Your task to perform on an android device: turn off airplane mode Image 0: 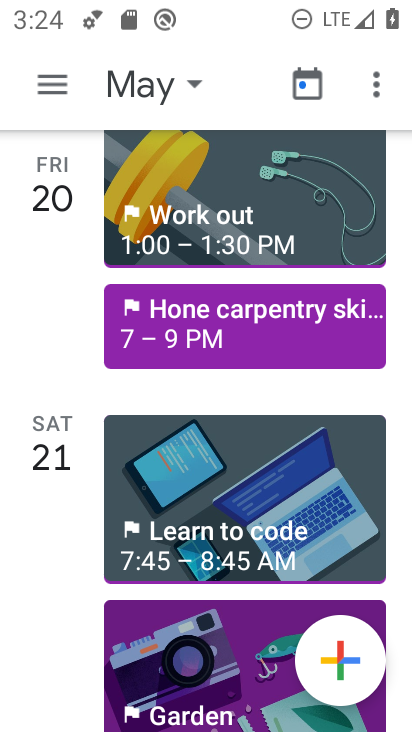
Step 0: press home button
Your task to perform on an android device: turn off airplane mode Image 1: 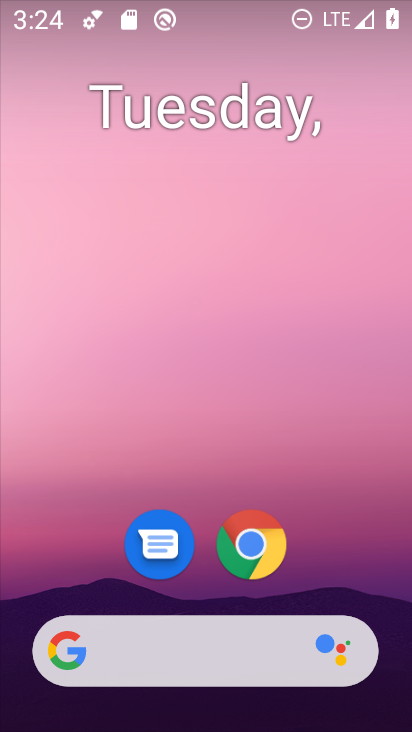
Step 1: drag from (359, 558) to (359, 146)
Your task to perform on an android device: turn off airplane mode Image 2: 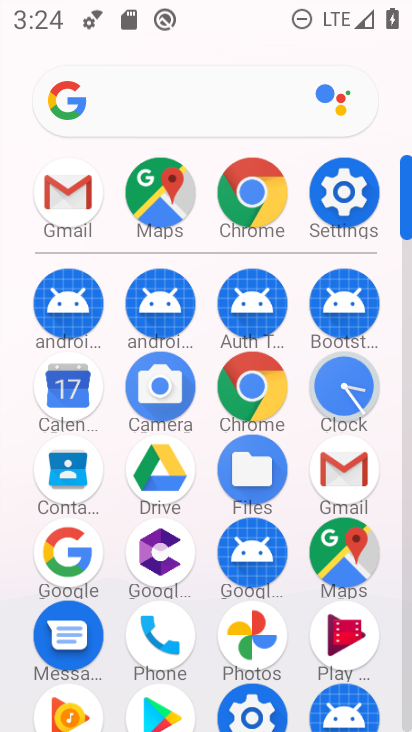
Step 2: click (360, 201)
Your task to perform on an android device: turn off airplane mode Image 3: 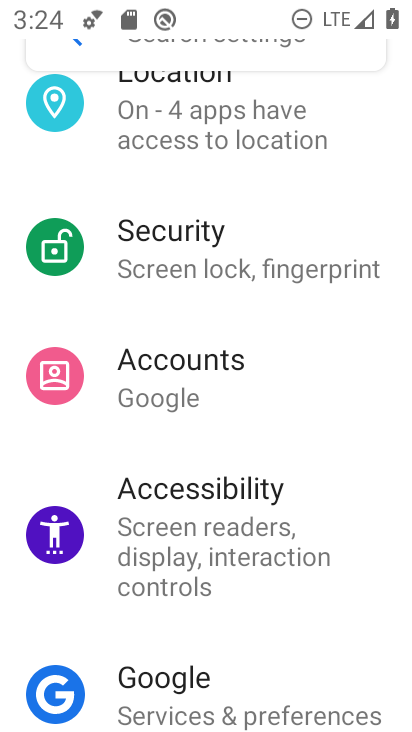
Step 3: drag from (361, 648) to (356, 433)
Your task to perform on an android device: turn off airplane mode Image 4: 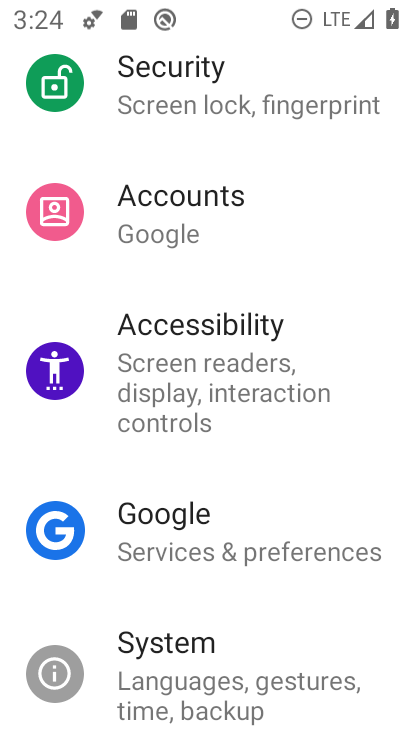
Step 4: drag from (336, 613) to (357, 436)
Your task to perform on an android device: turn off airplane mode Image 5: 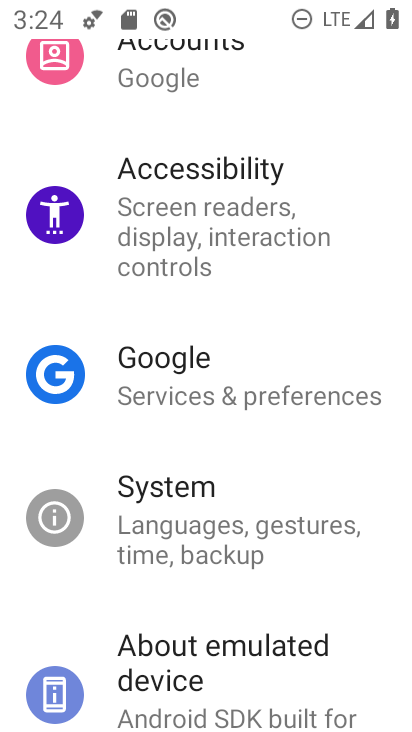
Step 5: drag from (357, 436) to (359, 527)
Your task to perform on an android device: turn off airplane mode Image 6: 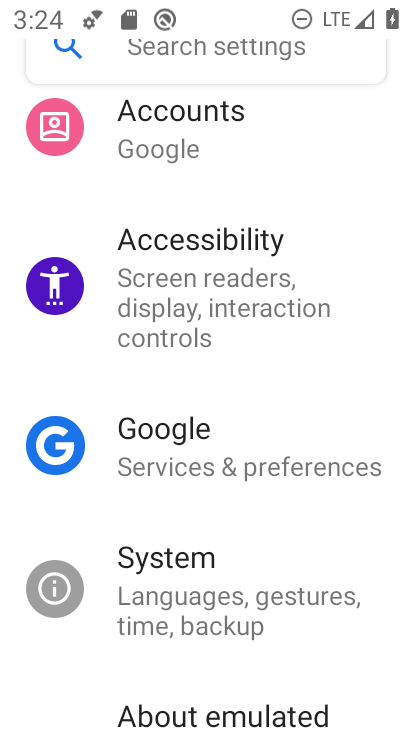
Step 6: drag from (367, 383) to (375, 497)
Your task to perform on an android device: turn off airplane mode Image 7: 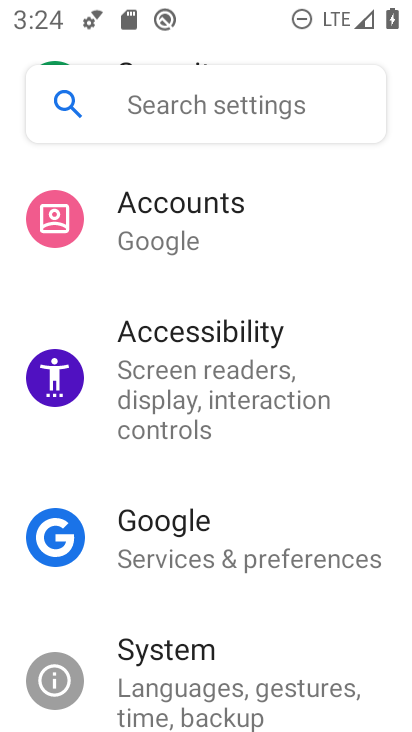
Step 7: drag from (369, 350) to (372, 463)
Your task to perform on an android device: turn off airplane mode Image 8: 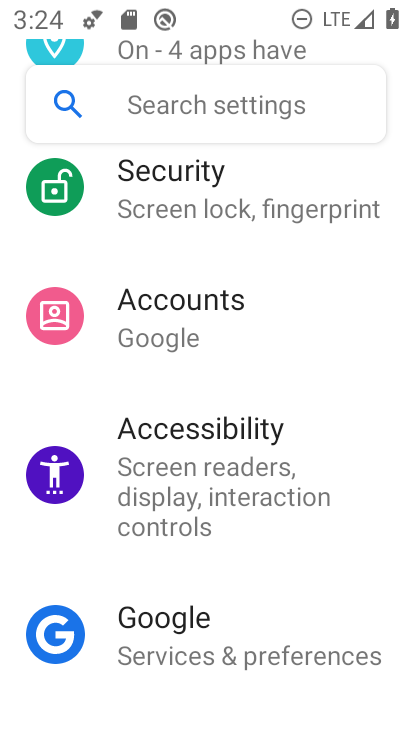
Step 8: drag from (366, 319) to (355, 431)
Your task to perform on an android device: turn off airplane mode Image 9: 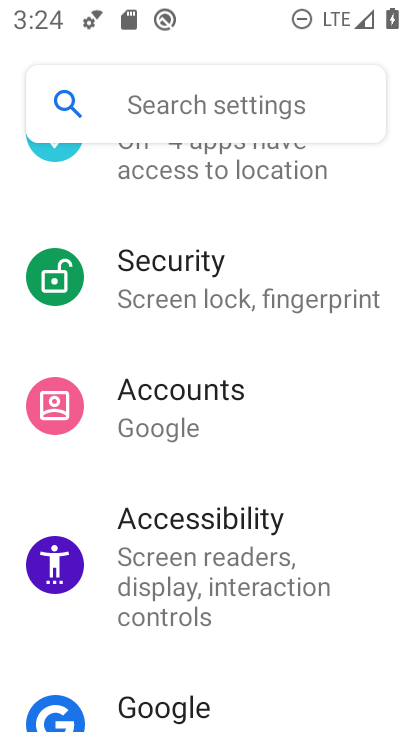
Step 9: drag from (352, 330) to (358, 415)
Your task to perform on an android device: turn off airplane mode Image 10: 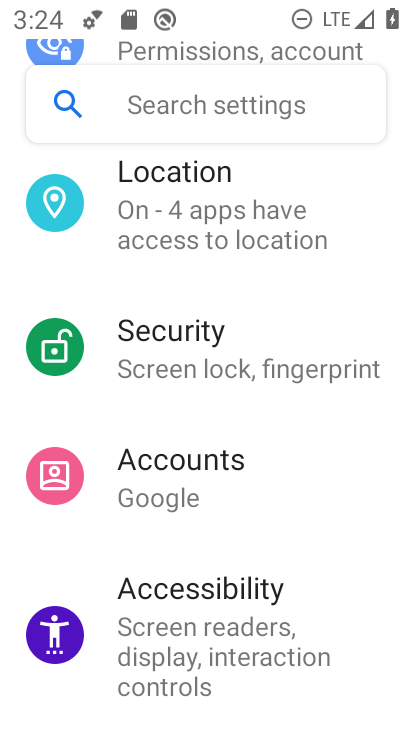
Step 10: drag from (382, 232) to (383, 337)
Your task to perform on an android device: turn off airplane mode Image 11: 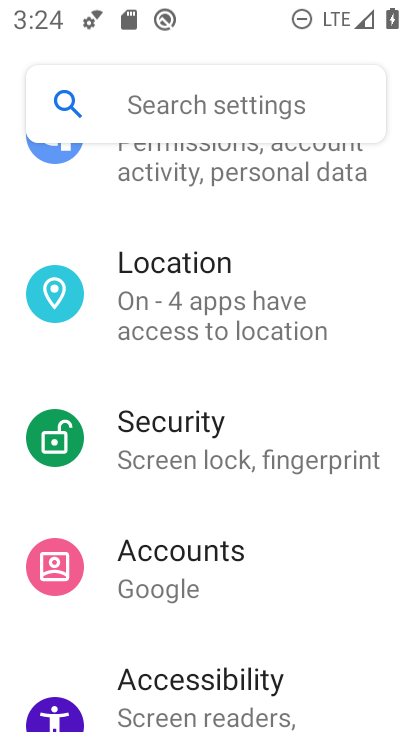
Step 11: drag from (374, 252) to (351, 386)
Your task to perform on an android device: turn off airplane mode Image 12: 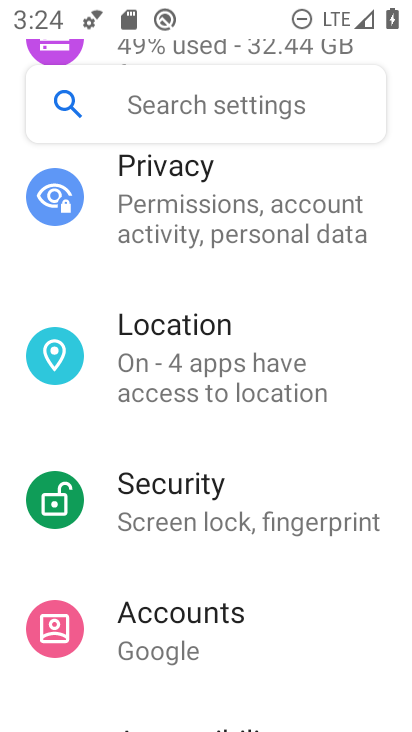
Step 12: drag from (358, 254) to (350, 388)
Your task to perform on an android device: turn off airplane mode Image 13: 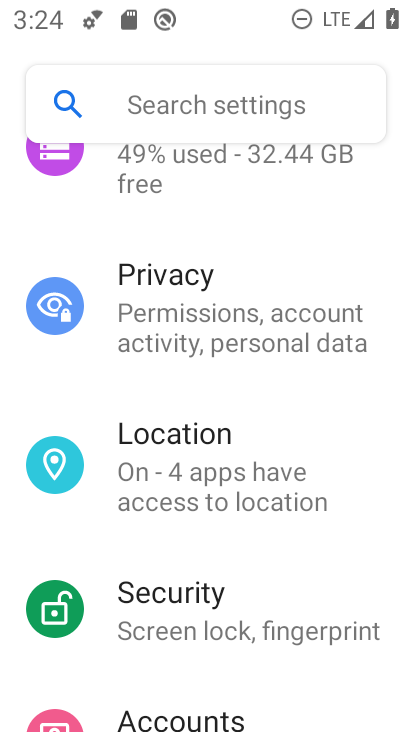
Step 13: drag from (364, 234) to (354, 438)
Your task to perform on an android device: turn off airplane mode Image 14: 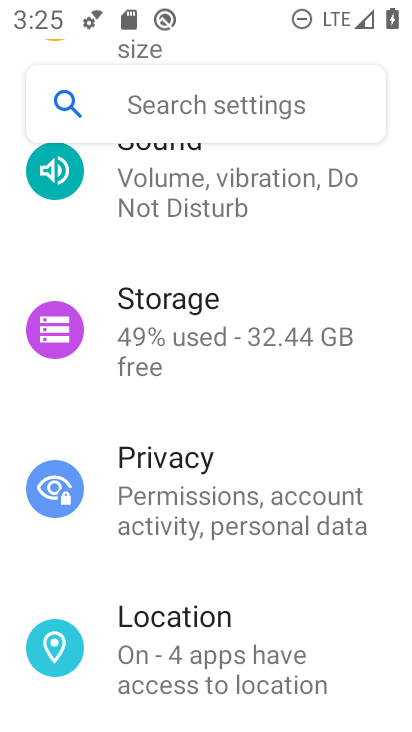
Step 14: drag from (378, 265) to (364, 405)
Your task to perform on an android device: turn off airplane mode Image 15: 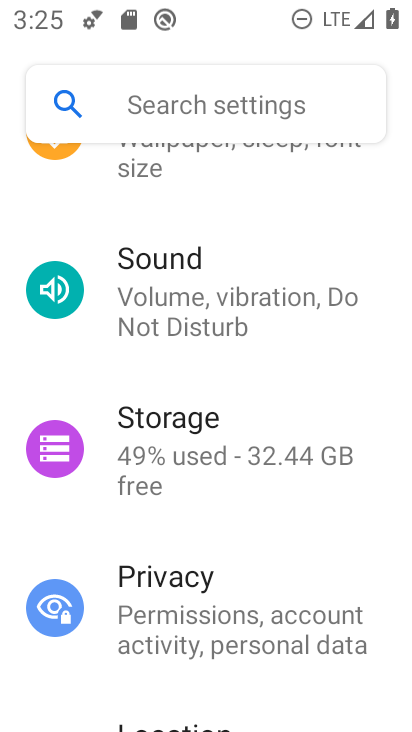
Step 15: drag from (372, 219) to (371, 377)
Your task to perform on an android device: turn off airplane mode Image 16: 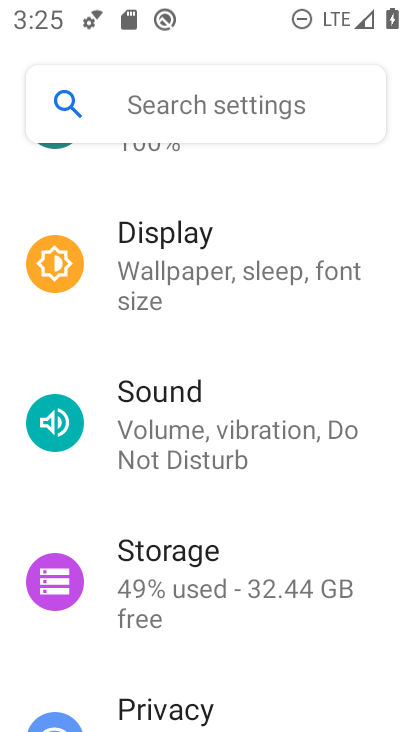
Step 16: drag from (374, 206) to (359, 370)
Your task to perform on an android device: turn off airplane mode Image 17: 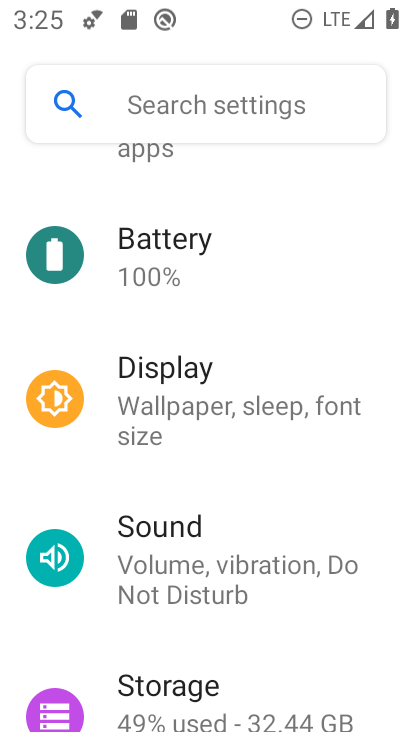
Step 17: drag from (358, 177) to (351, 347)
Your task to perform on an android device: turn off airplane mode Image 18: 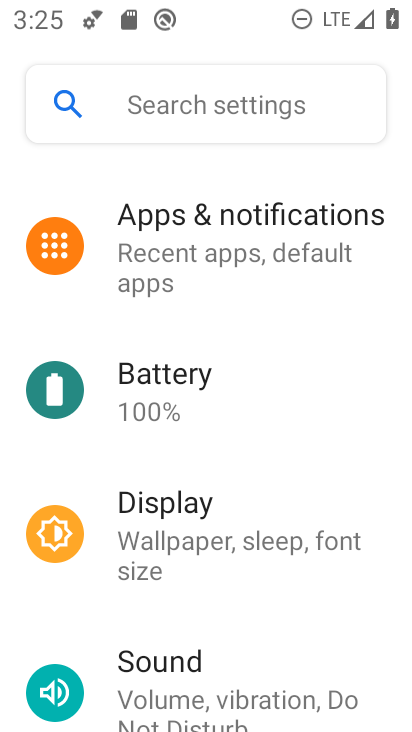
Step 18: drag from (346, 173) to (337, 355)
Your task to perform on an android device: turn off airplane mode Image 19: 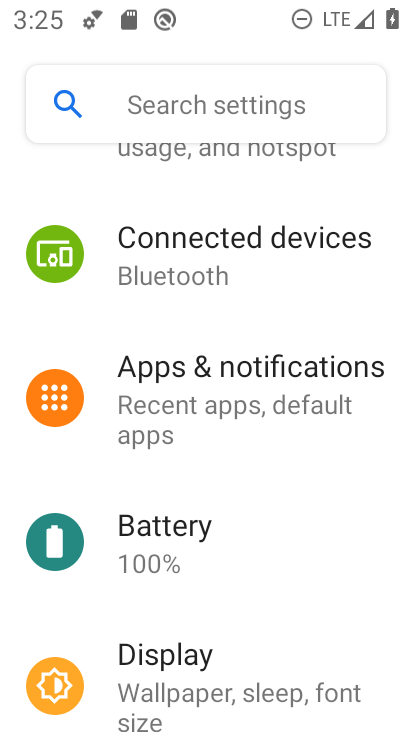
Step 19: drag from (346, 168) to (335, 324)
Your task to perform on an android device: turn off airplane mode Image 20: 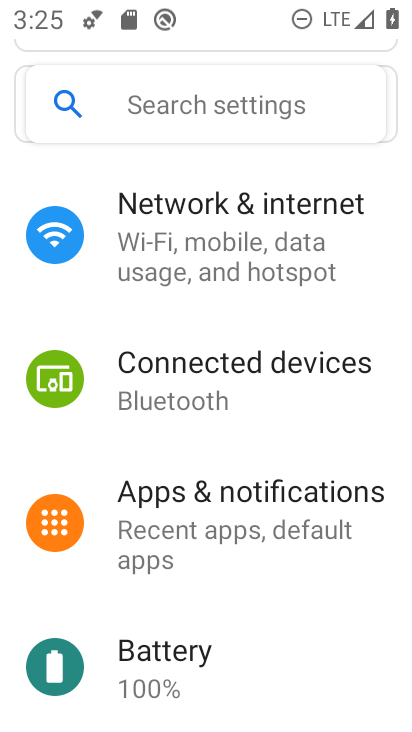
Step 20: click (284, 230)
Your task to perform on an android device: turn off airplane mode Image 21: 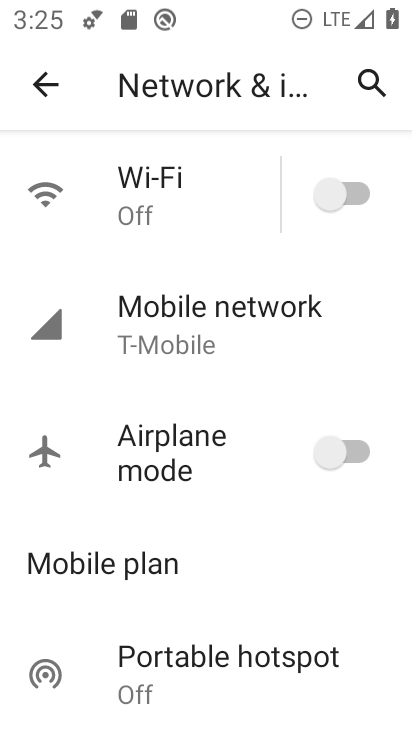
Step 21: task complete